Your task to perform on an android device: open a bookmark in the chrome app Image 0: 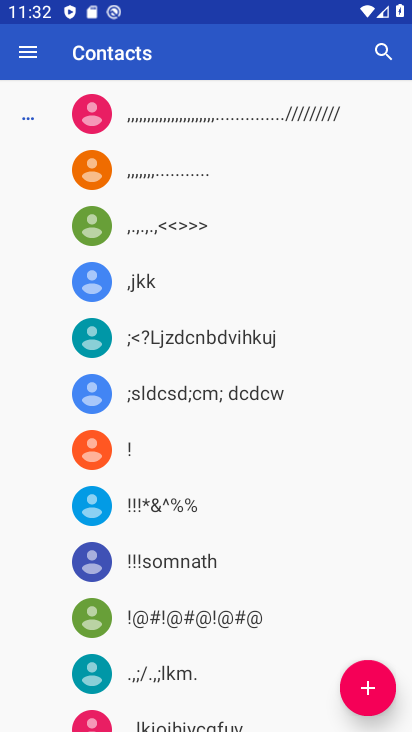
Step 0: press home button
Your task to perform on an android device: open a bookmark in the chrome app Image 1: 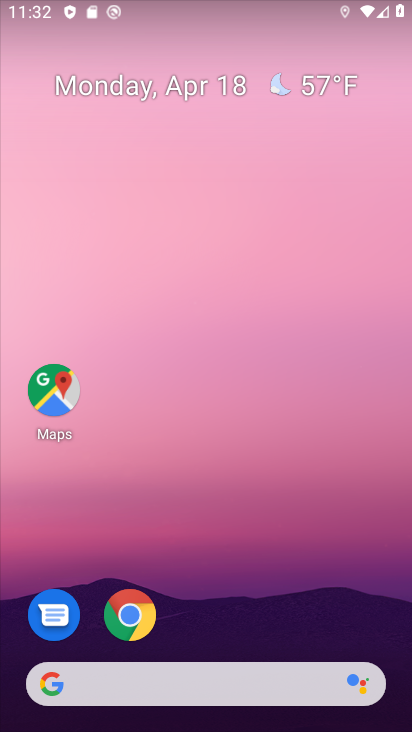
Step 1: click (123, 599)
Your task to perform on an android device: open a bookmark in the chrome app Image 2: 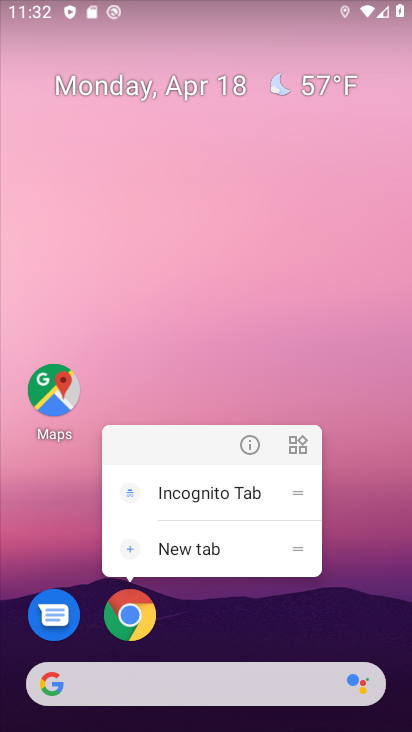
Step 2: click (128, 601)
Your task to perform on an android device: open a bookmark in the chrome app Image 3: 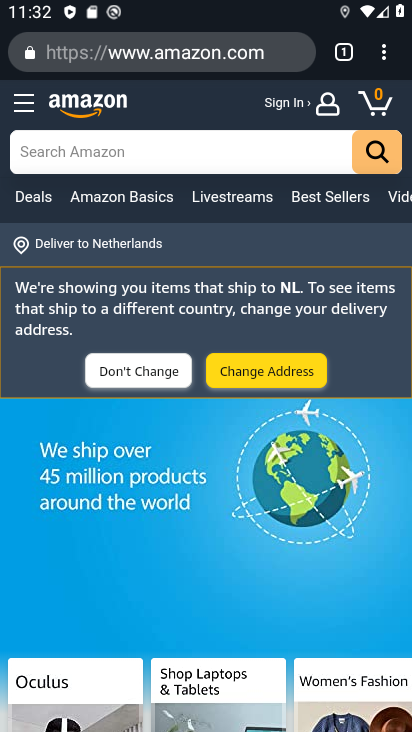
Step 3: click (384, 48)
Your task to perform on an android device: open a bookmark in the chrome app Image 4: 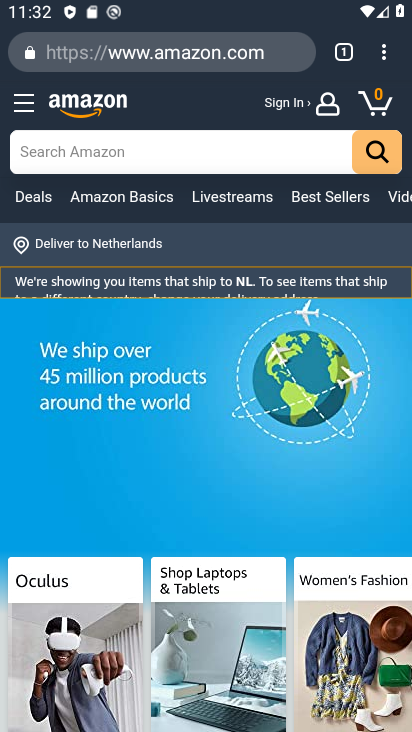
Step 4: click (387, 52)
Your task to perform on an android device: open a bookmark in the chrome app Image 5: 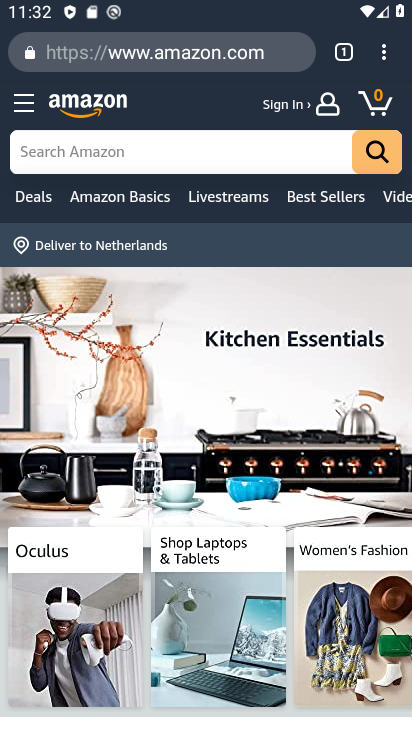
Step 5: click (385, 48)
Your task to perform on an android device: open a bookmark in the chrome app Image 6: 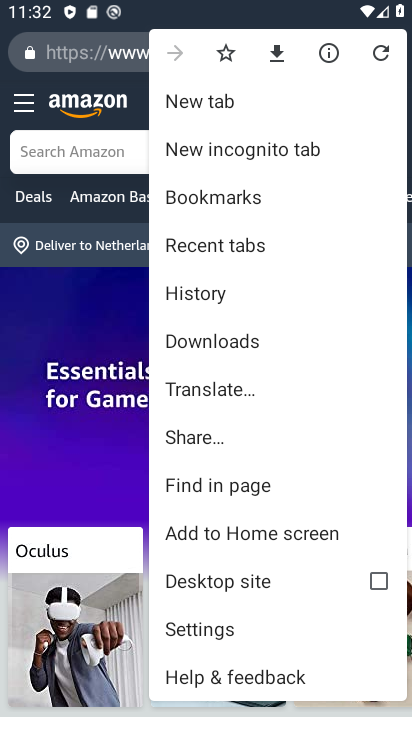
Step 6: click (254, 195)
Your task to perform on an android device: open a bookmark in the chrome app Image 7: 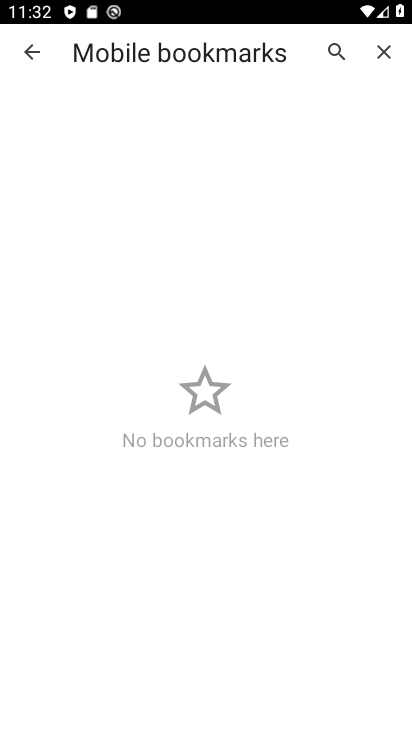
Step 7: task complete